Your task to perform on an android device: Install the Yelp app Image 0: 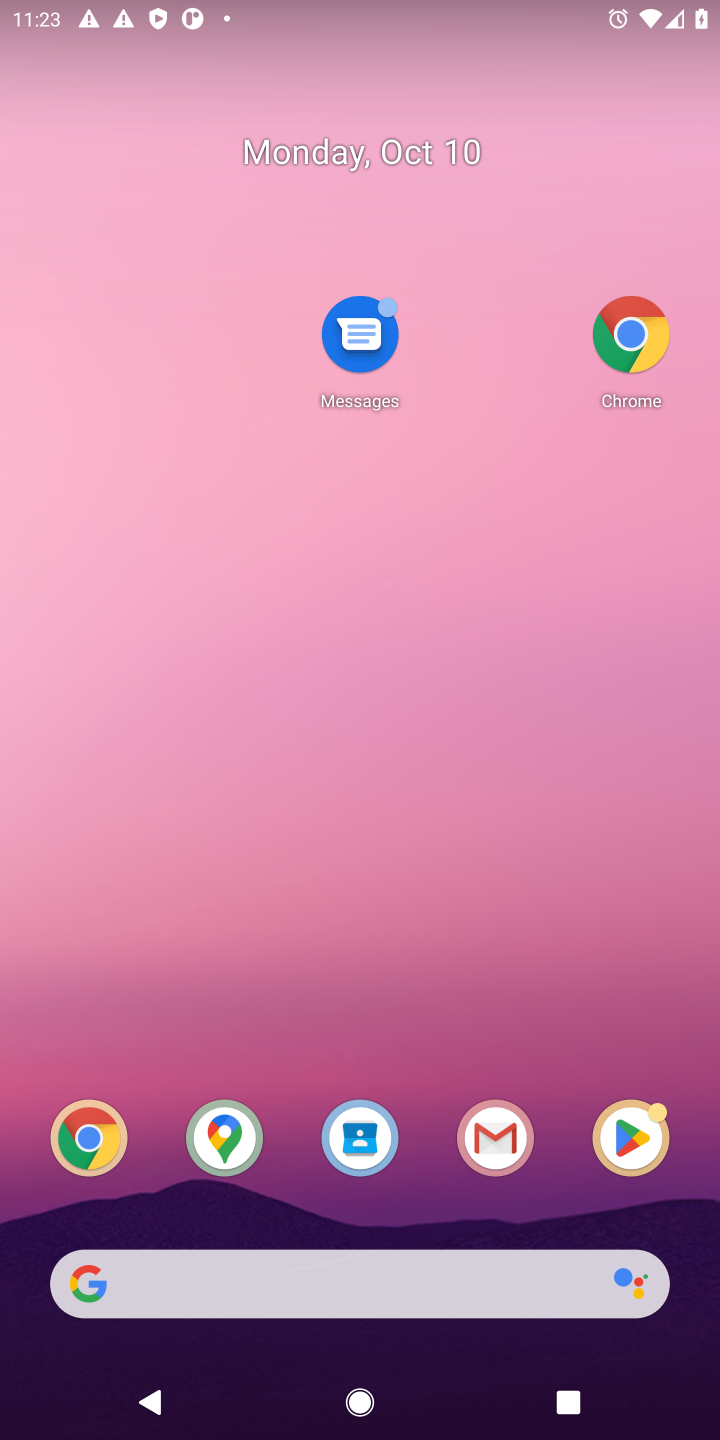
Step 0: drag from (240, 925) to (306, 328)
Your task to perform on an android device: Install the Yelp app Image 1: 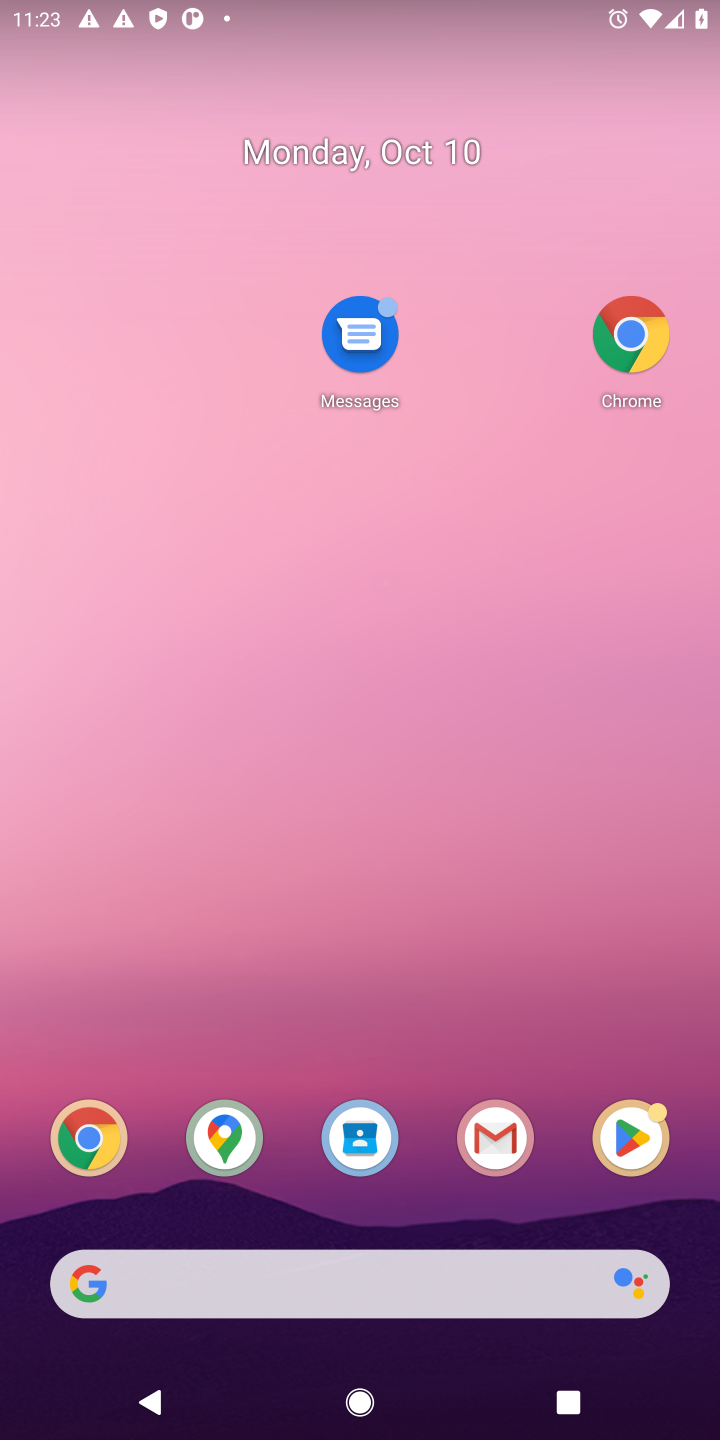
Step 1: drag from (463, 944) to (463, 292)
Your task to perform on an android device: Install the Yelp app Image 2: 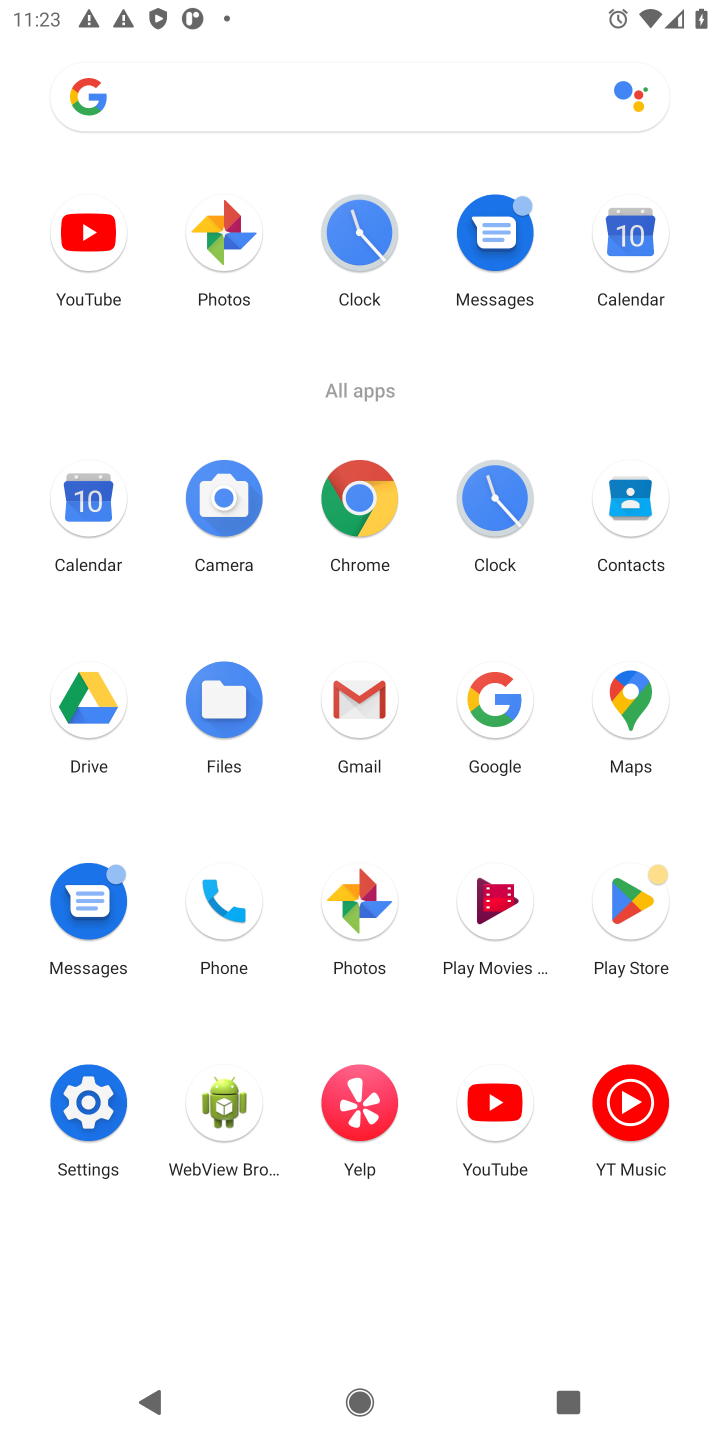
Step 2: click (630, 926)
Your task to perform on an android device: Install the Yelp app Image 3: 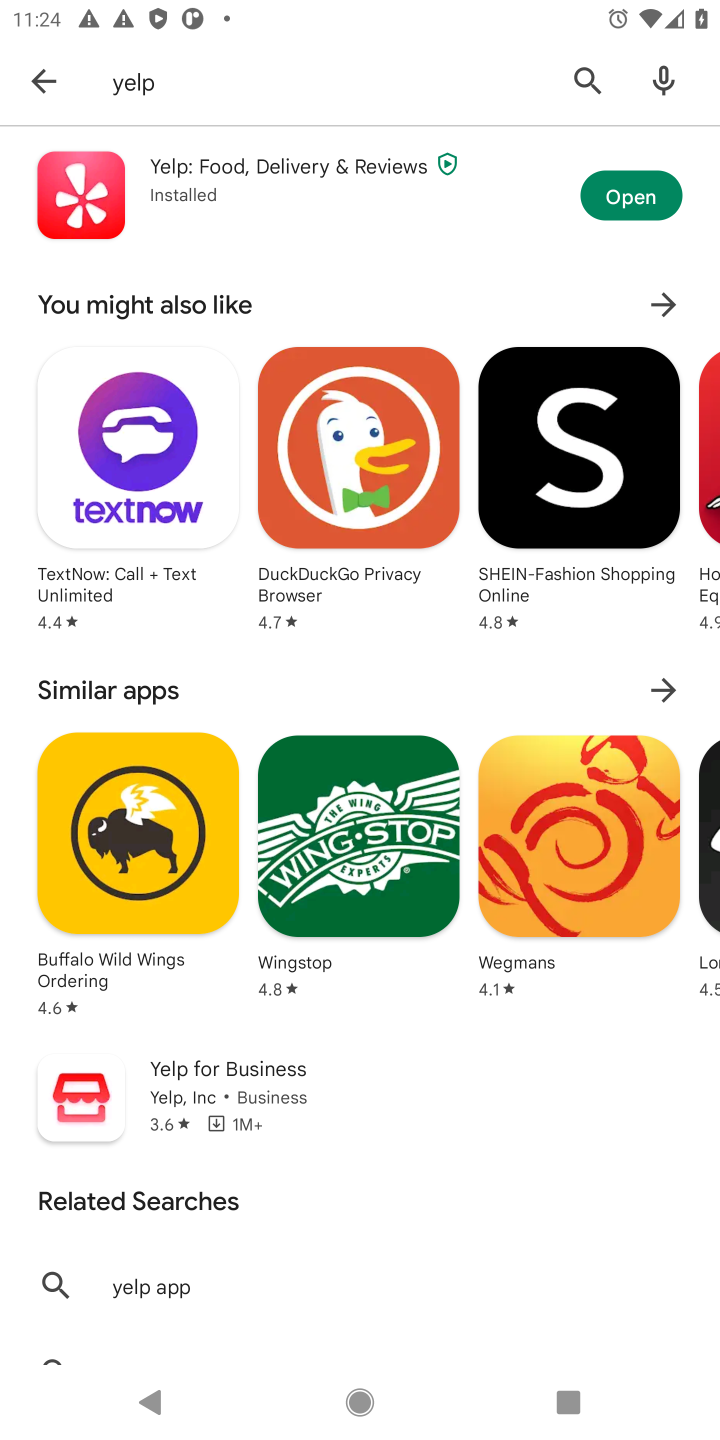
Step 3: click (594, 84)
Your task to perform on an android device: Install the Yelp app Image 4: 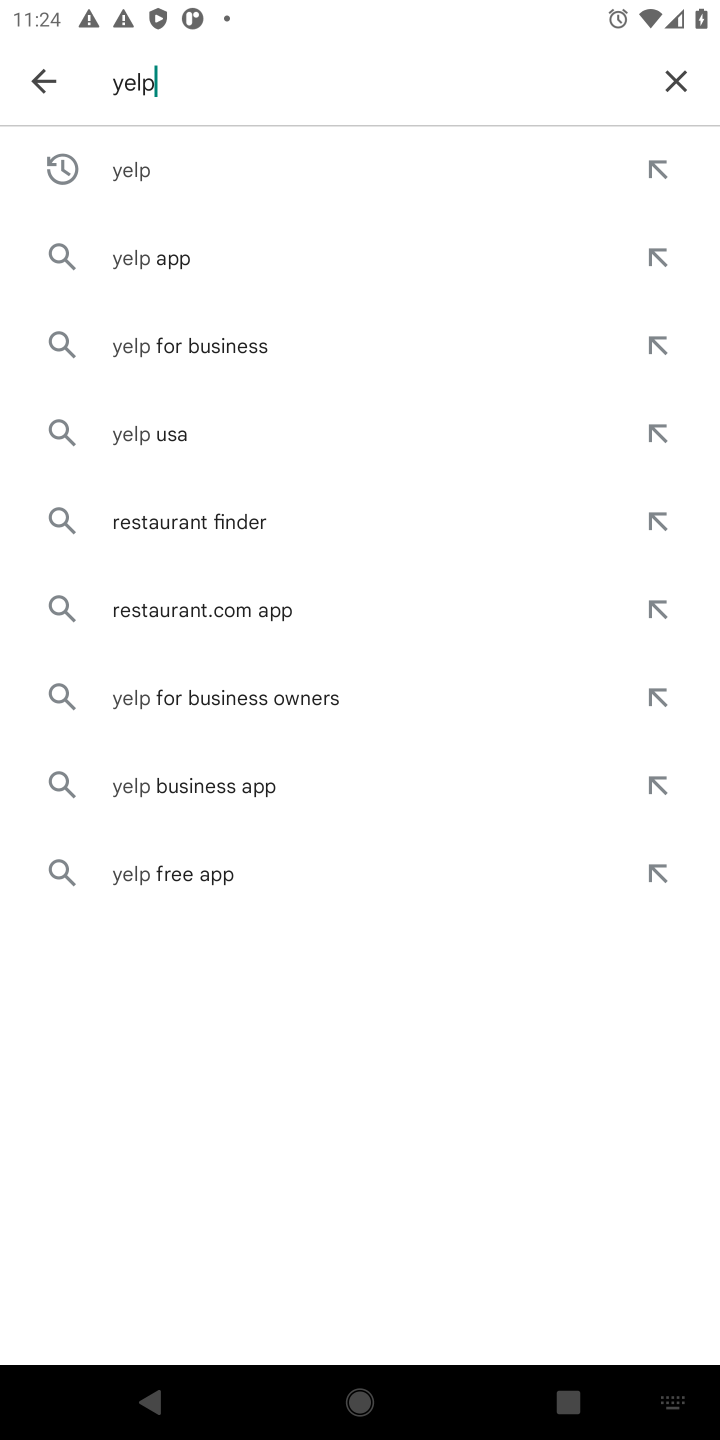
Step 4: click (686, 84)
Your task to perform on an android device: Install the Yelp app Image 5: 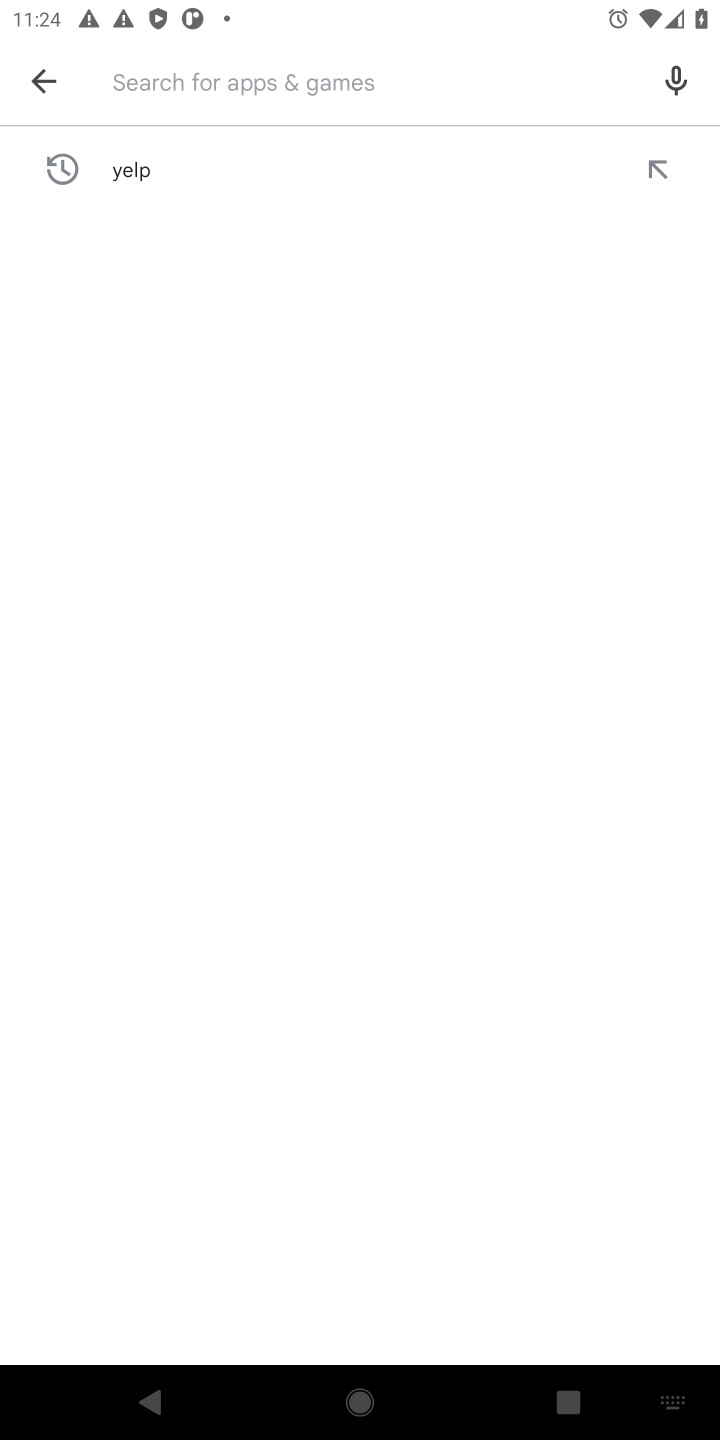
Step 5: press enter
Your task to perform on an android device: Install the Yelp app Image 6: 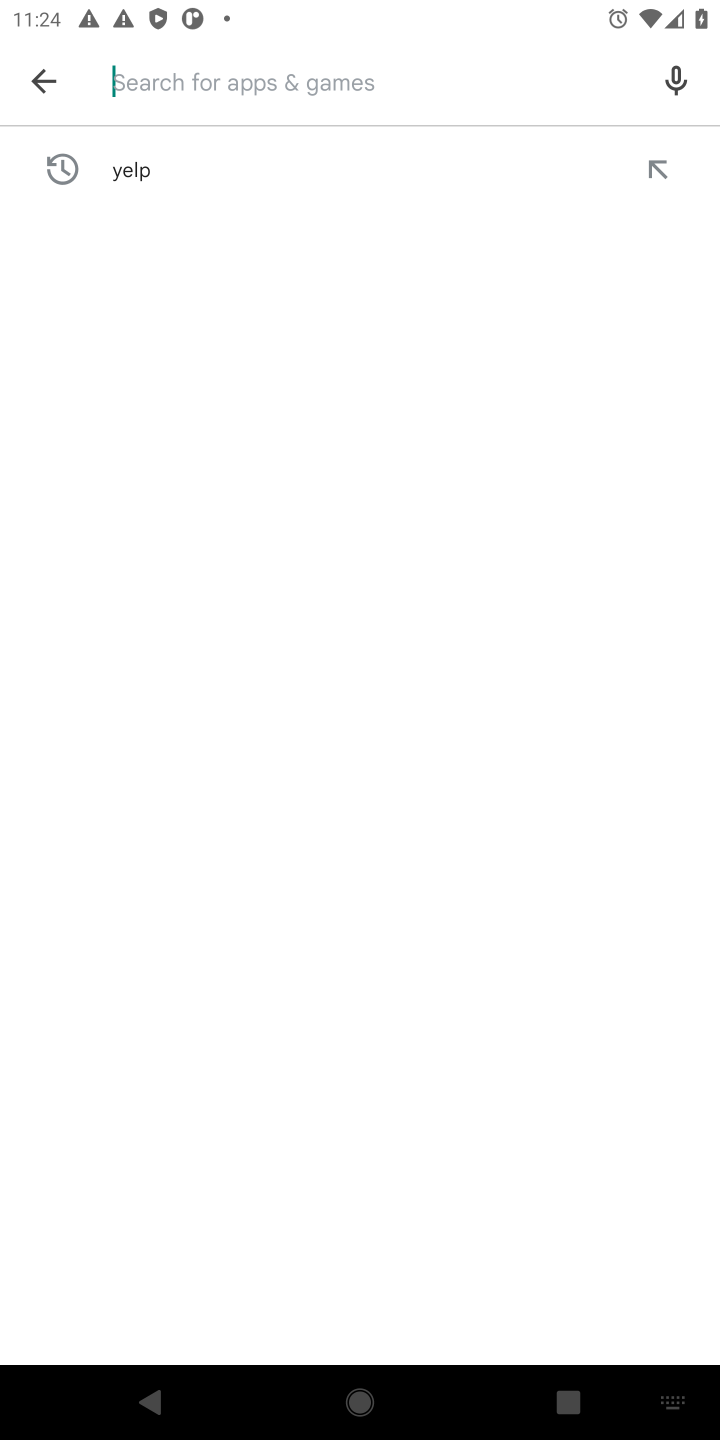
Step 6: type "yelp"
Your task to perform on an android device: Install the Yelp app Image 7: 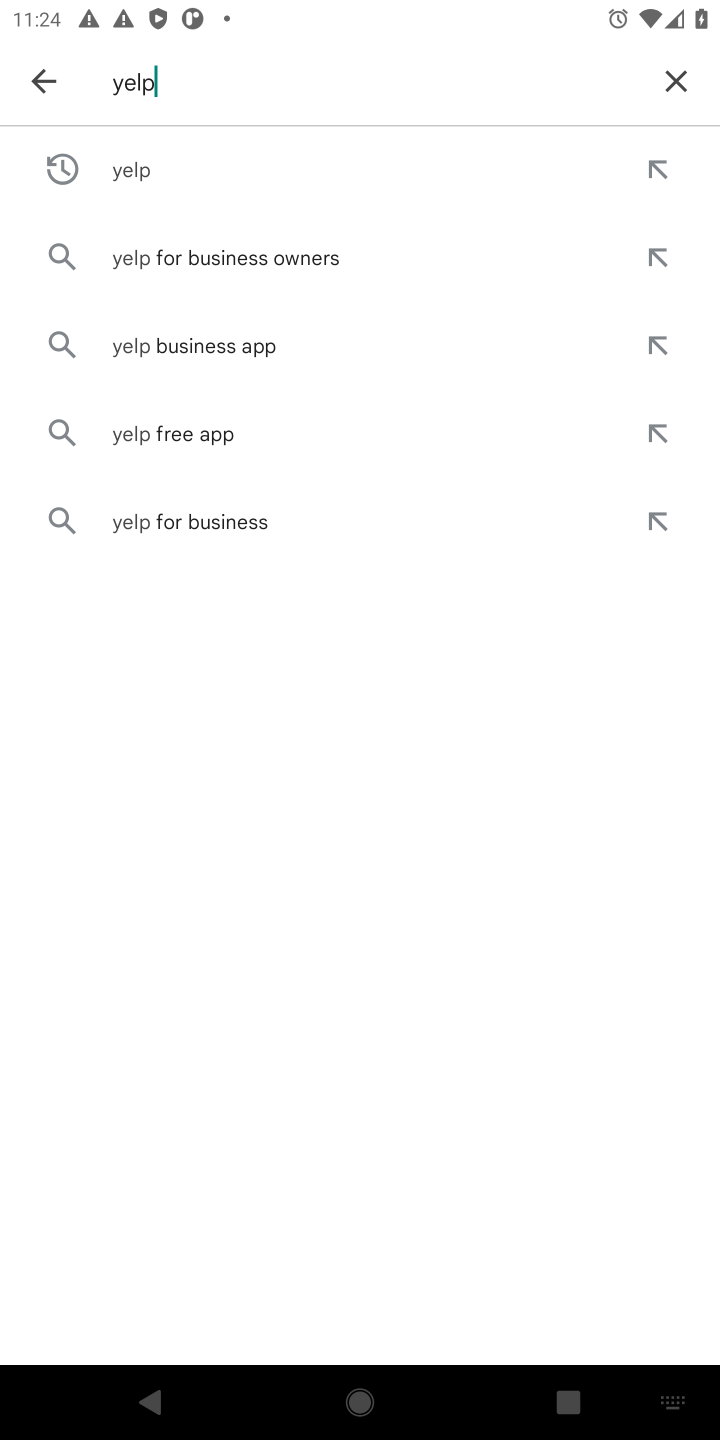
Step 7: press enter
Your task to perform on an android device: Install the Yelp app Image 8: 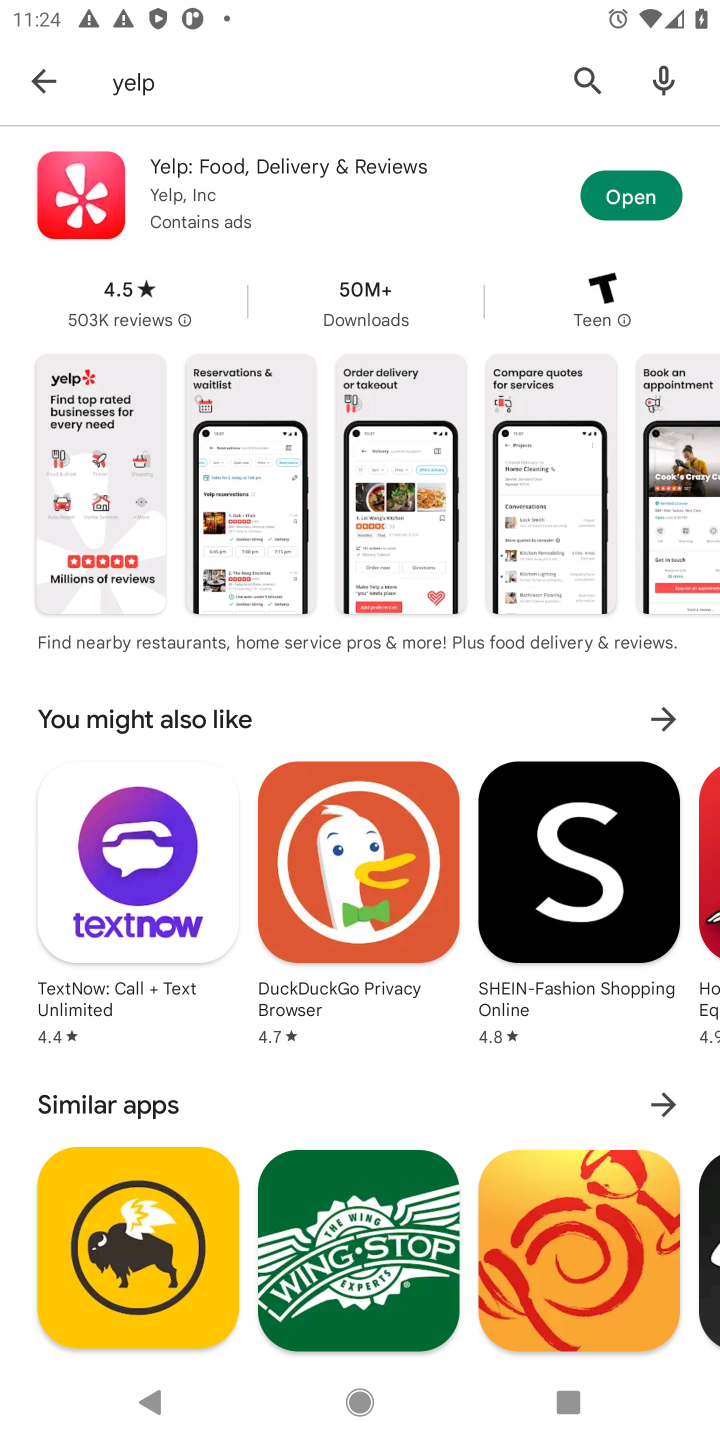
Step 8: task complete